Your task to perform on an android device: turn off picture-in-picture Image 0: 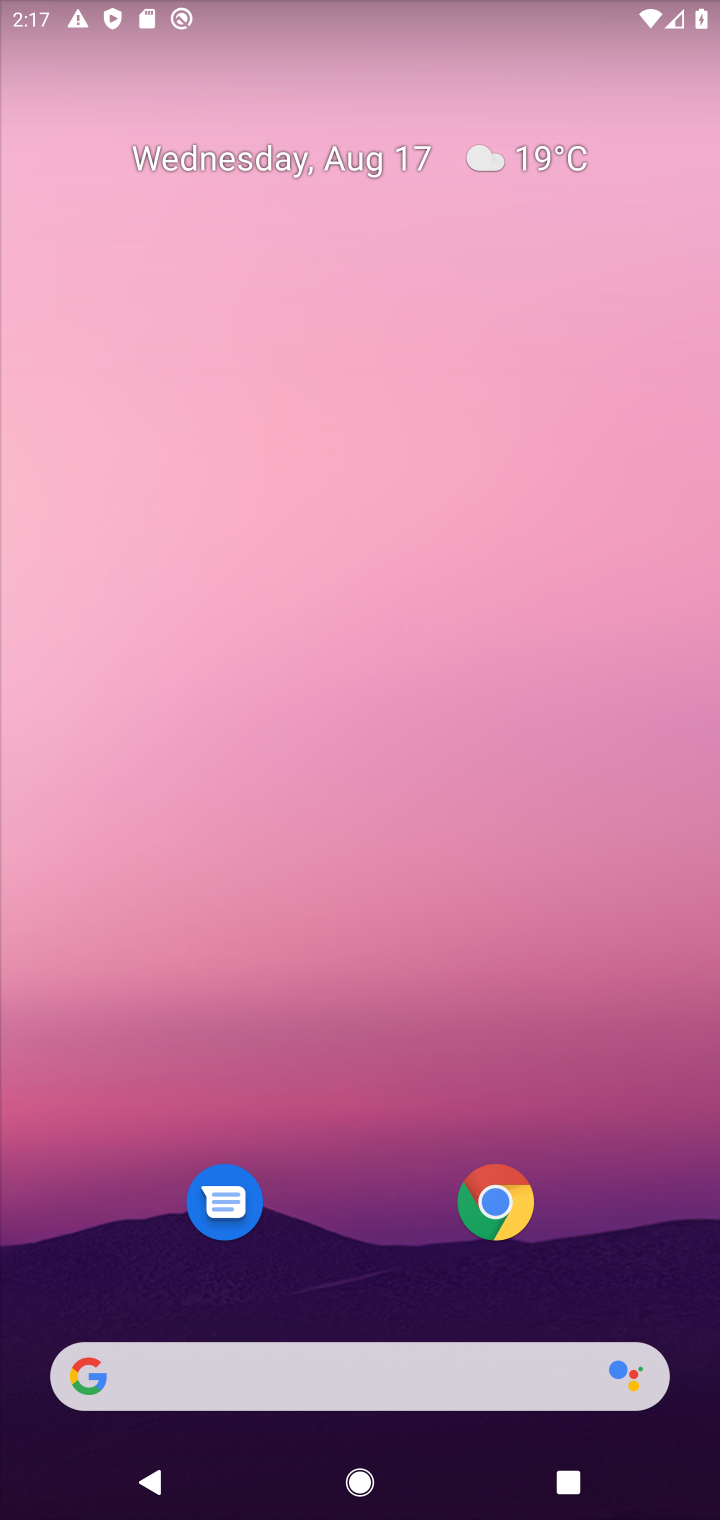
Step 0: drag from (377, 1042) to (406, 157)
Your task to perform on an android device: turn off picture-in-picture Image 1: 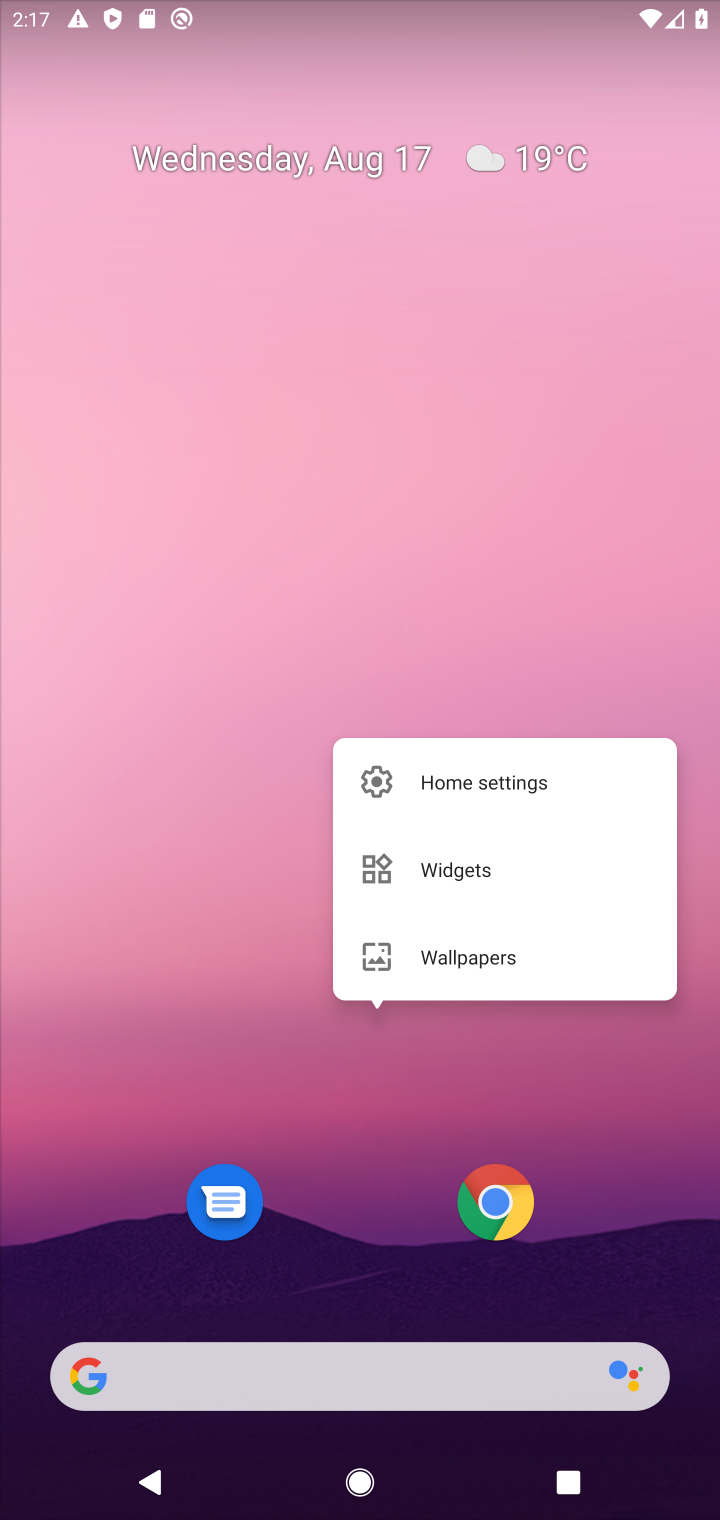
Step 1: click (498, 1151)
Your task to perform on an android device: turn off picture-in-picture Image 2: 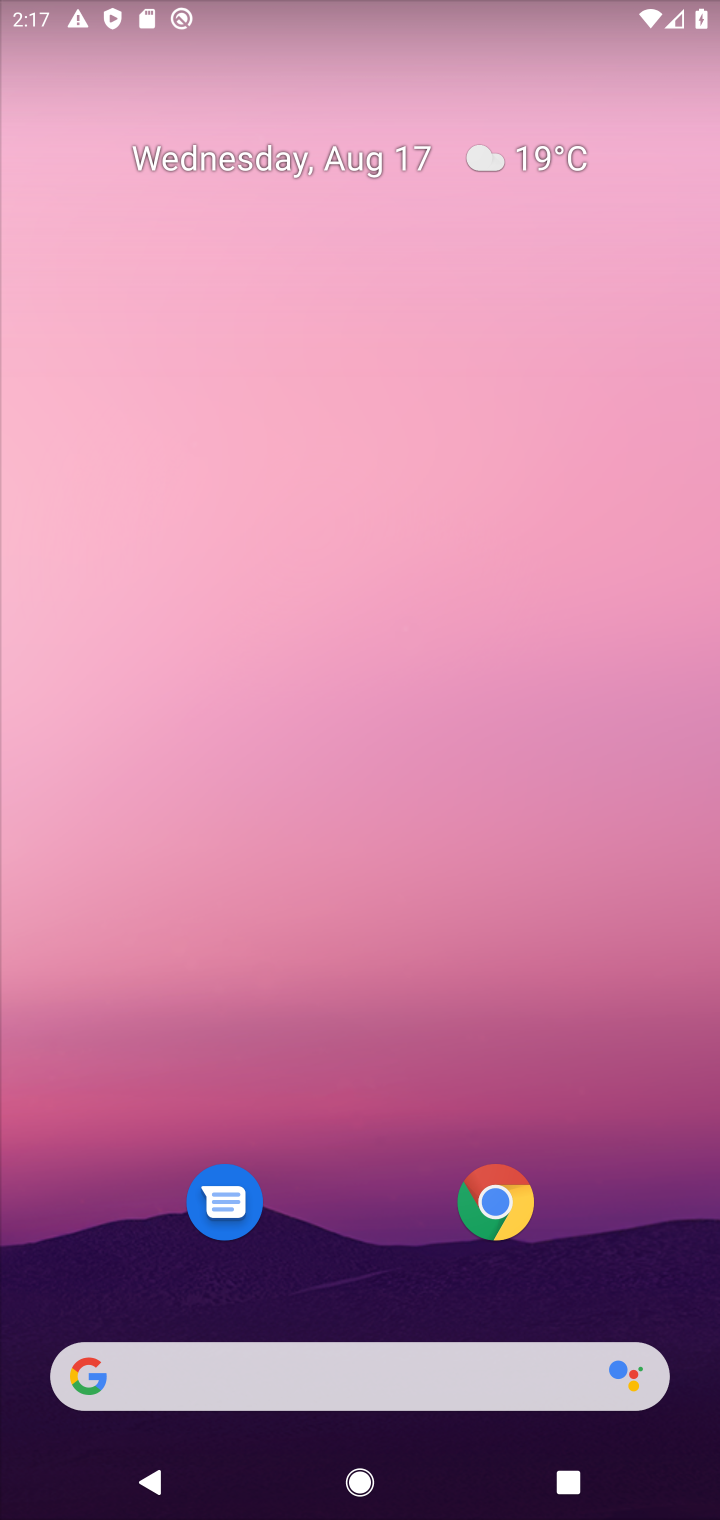
Step 2: click (498, 1190)
Your task to perform on an android device: turn off picture-in-picture Image 3: 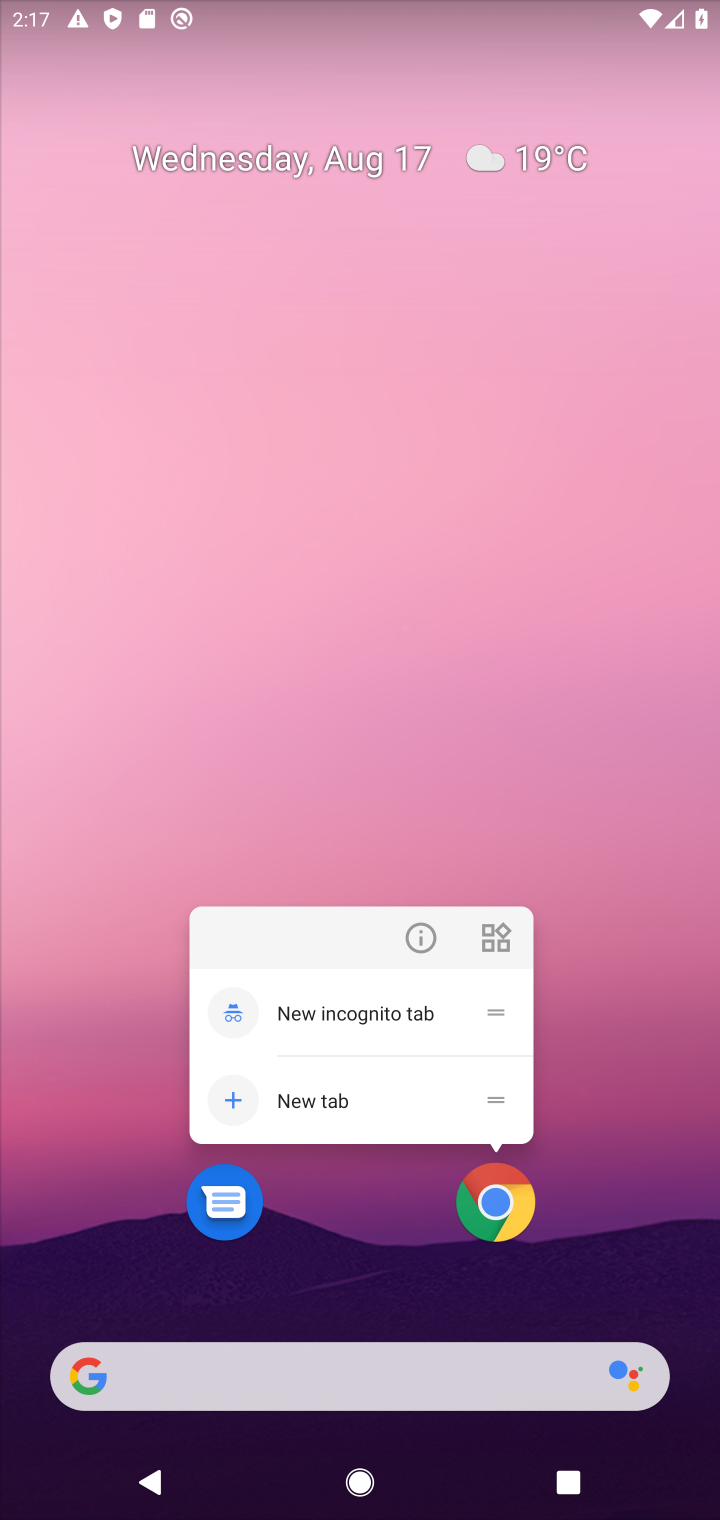
Step 3: click (431, 944)
Your task to perform on an android device: turn off picture-in-picture Image 4: 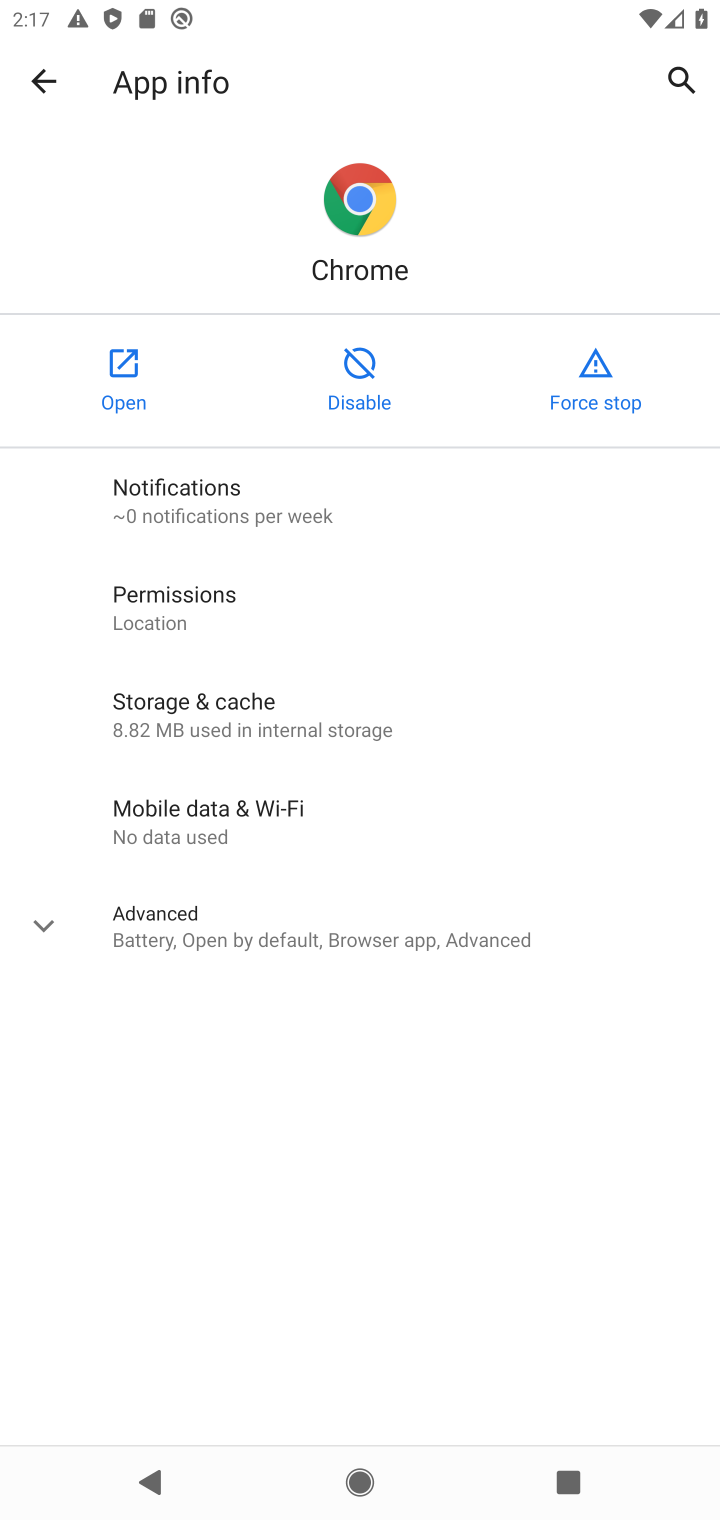
Step 4: click (166, 912)
Your task to perform on an android device: turn off picture-in-picture Image 5: 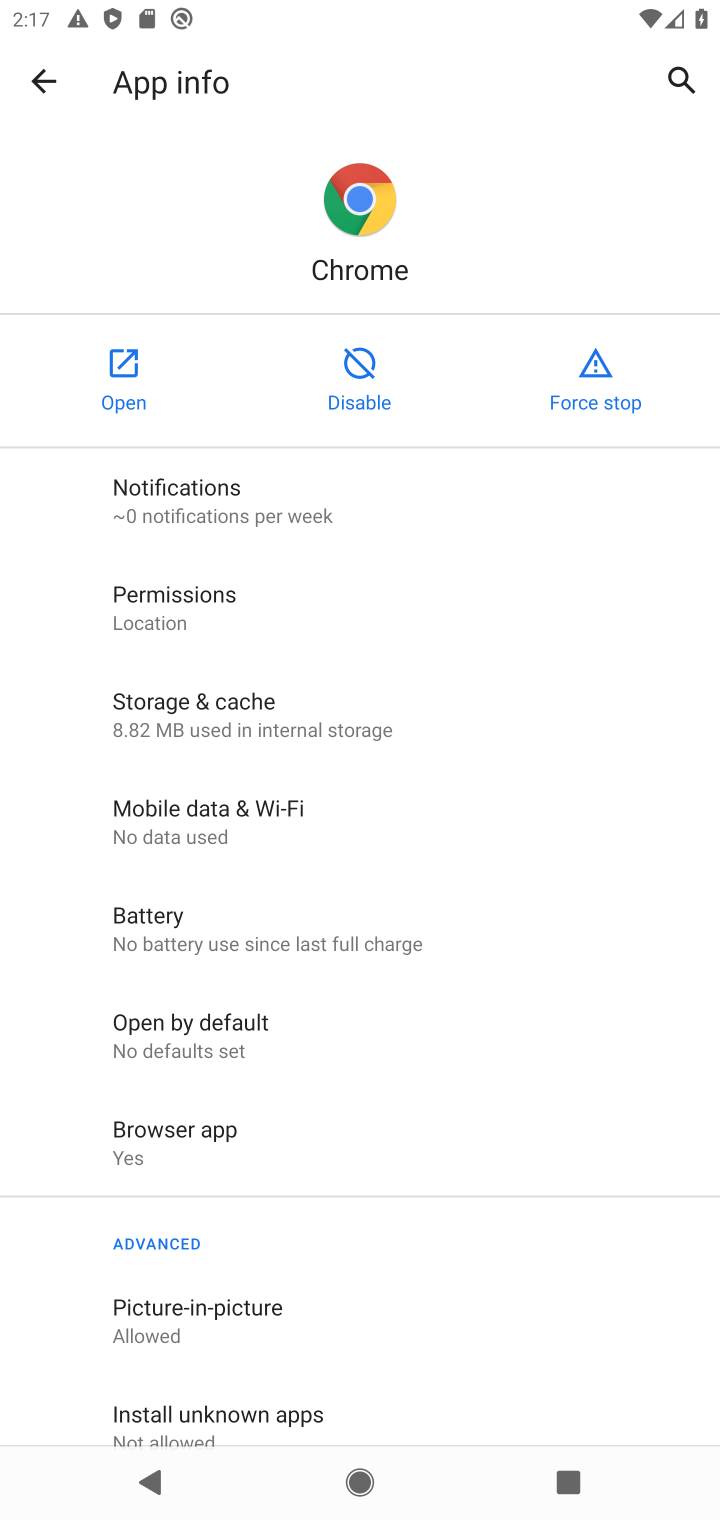
Step 5: click (188, 1306)
Your task to perform on an android device: turn off picture-in-picture Image 6: 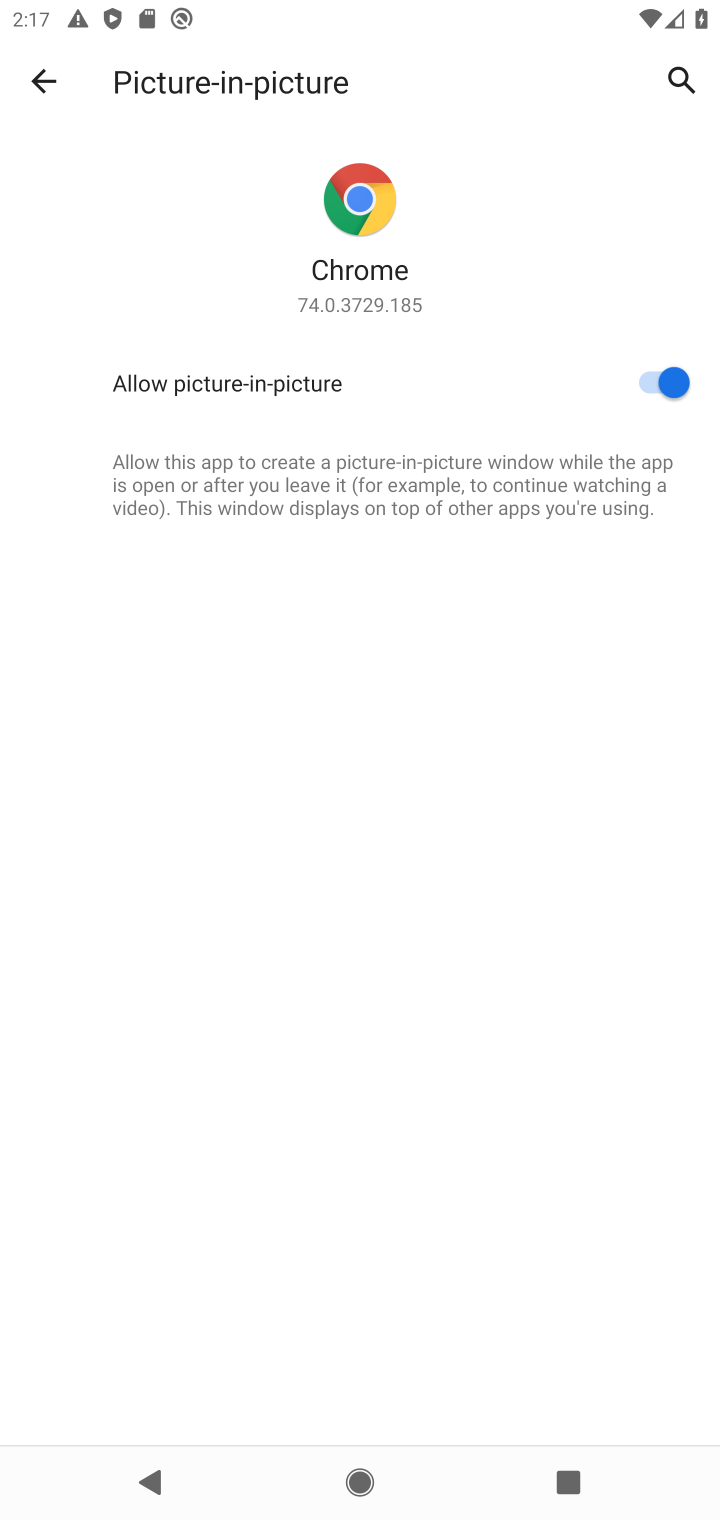
Step 6: click (620, 381)
Your task to perform on an android device: turn off picture-in-picture Image 7: 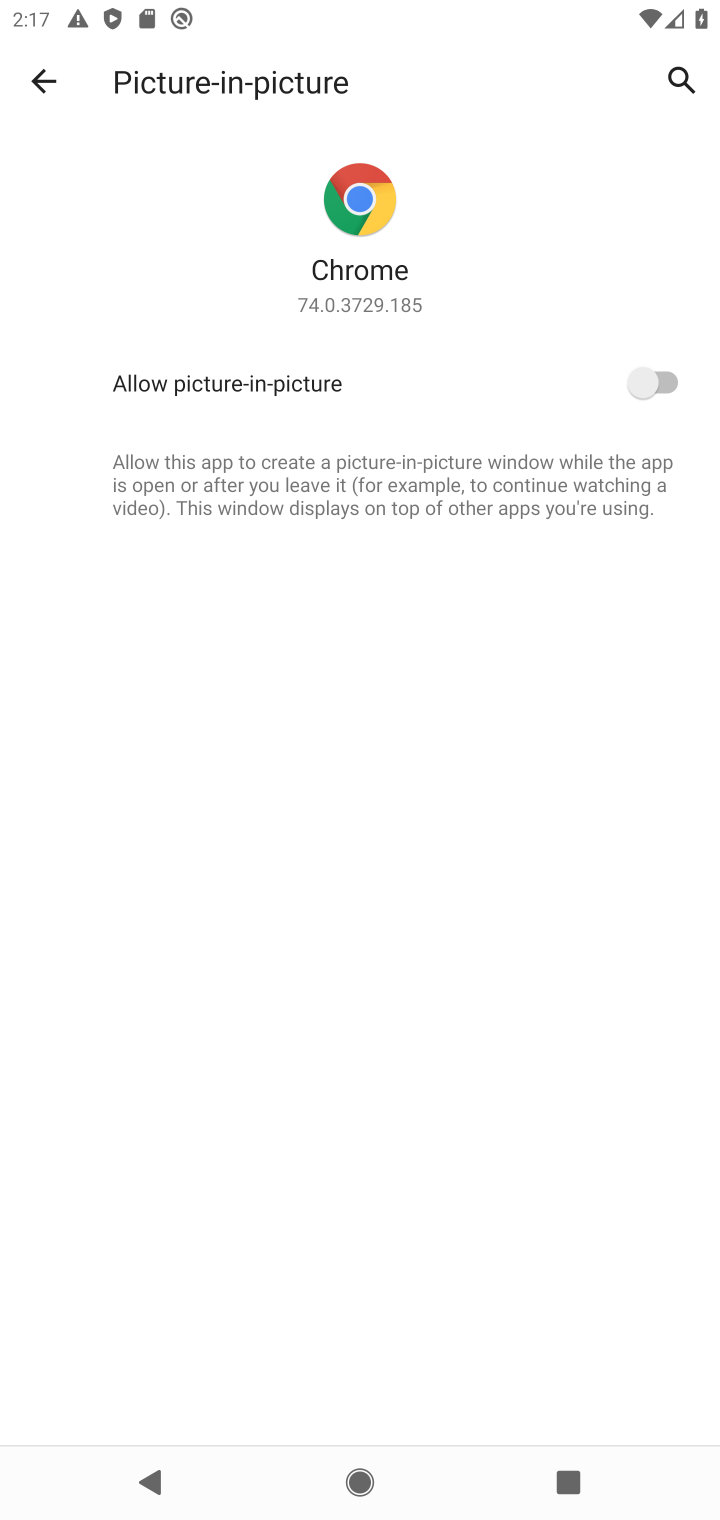
Step 7: task complete